Your task to perform on an android device: Search for pizza restaurants on Maps Image 0: 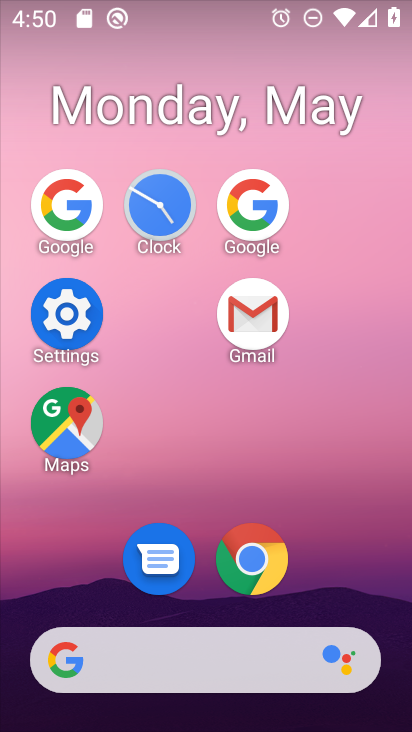
Step 0: click (66, 415)
Your task to perform on an android device: Search for pizza restaurants on Maps Image 1: 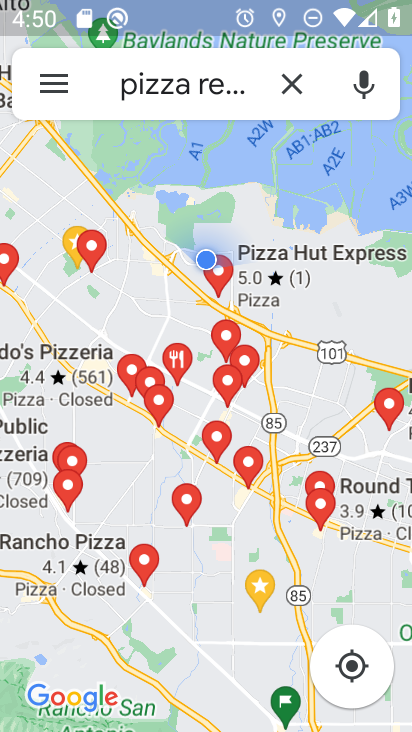
Step 1: task complete